Your task to perform on an android device: turn off notifications settings in the gmail app Image 0: 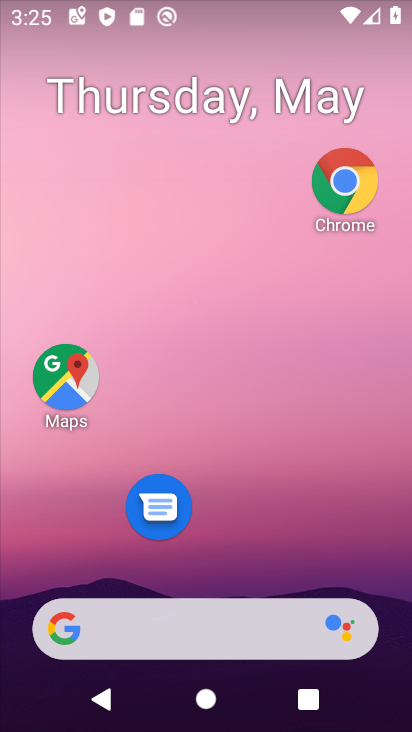
Step 0: drag from (289, 516) to (269, 79)
Your task to perform on an android device: turn off notifications settings in the gmail app Image 1: 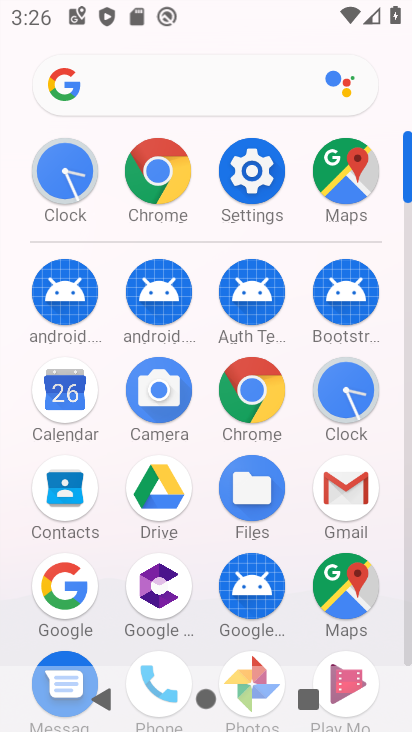
Step 1: click (341, 486)
Your task to perform on an android device: turn off notifications settings in the gmail app Image 2: 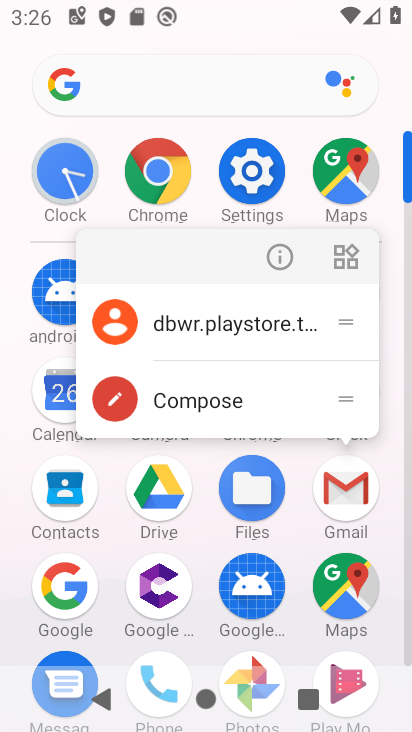
Step 2: click (285, 255)
Your task to perform on an android device: turn off notifications settings in the gmail app Image 3: 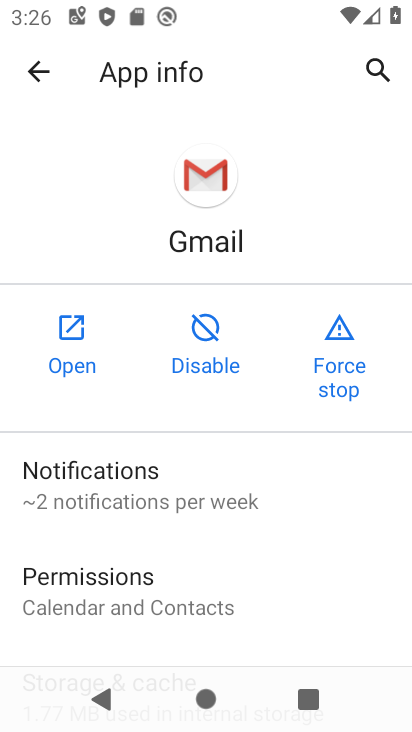
Step 3: click (167, 483)
Your task to perform on an android device: turn off notifications settings in the gmail app Image 4: 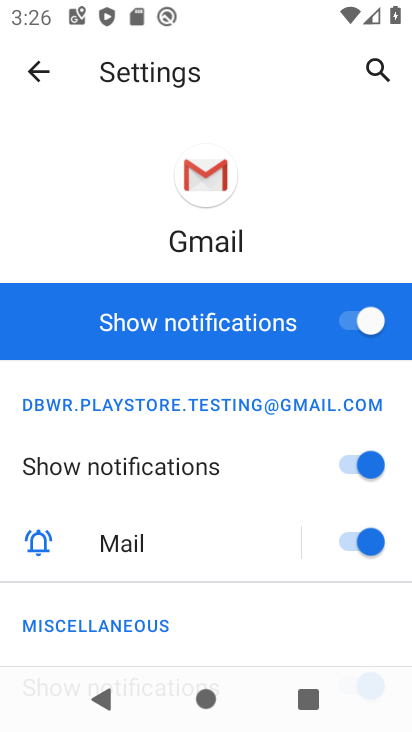
Step 4: click (351, 316)
Your task to perform on an android device: turn off notifications settings in the gmail app Image 5: 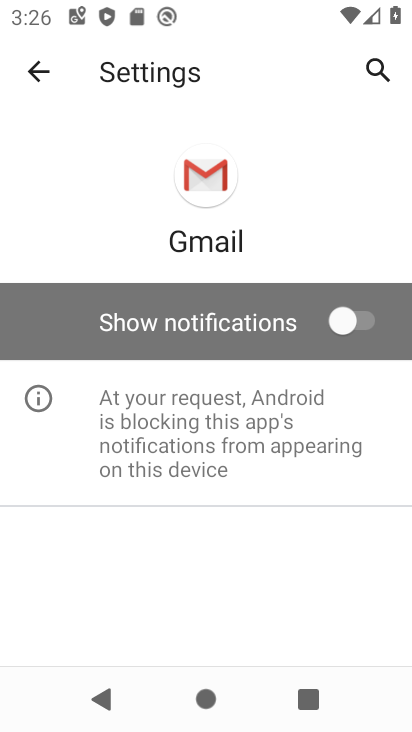
Step 5: task complete